Your task to perform on an android device: manage bookmarks in the chrome app Image 0: 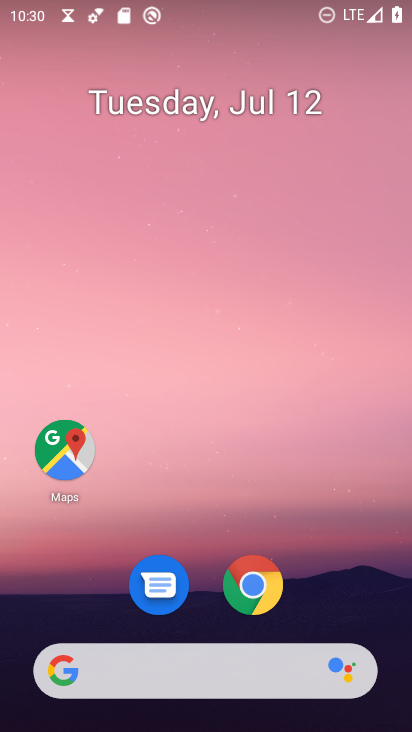
Step 0: press home button
Your task to perform on an android device: manage bookmarks in the chrome app Image 1: 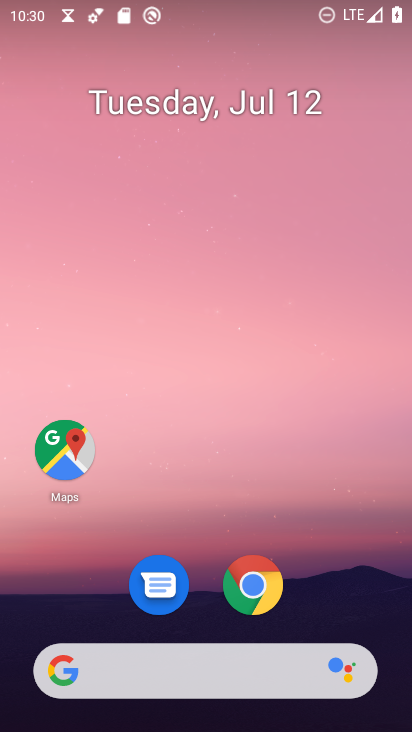
Step 1: click (262, 582)
Your task to perform on an android device: manage bookmarks in the chrome app Image 2: 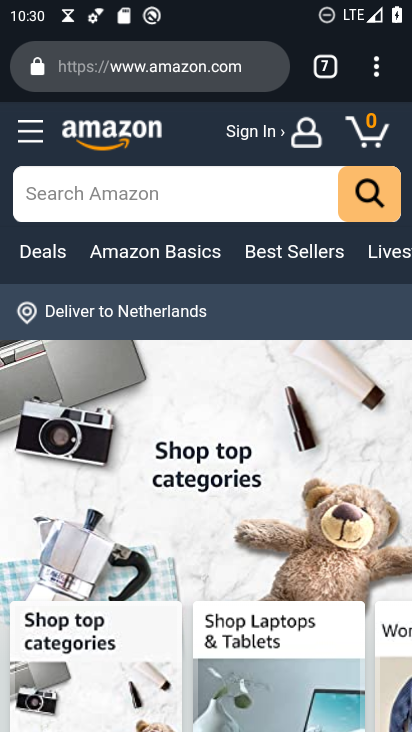
Step 2: drag from (375, 74) to (228, 257)
Your task to perform on an android device: manage bookmarks in the chrome app Image 3: 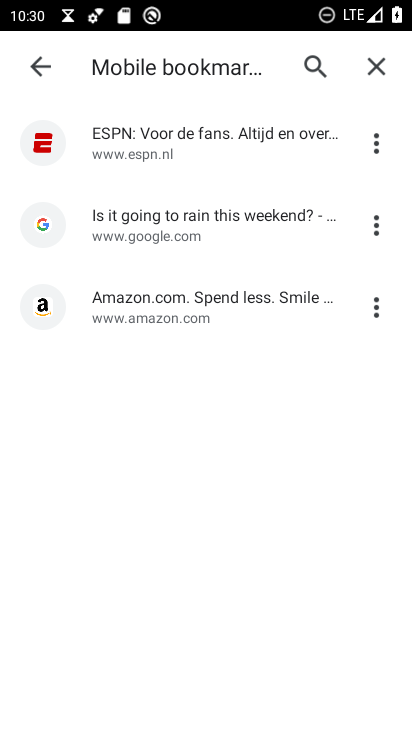
Step 3: click (374, 145)
Your task to perform on an android device: manage bookmarks in the chrome app Image 4: 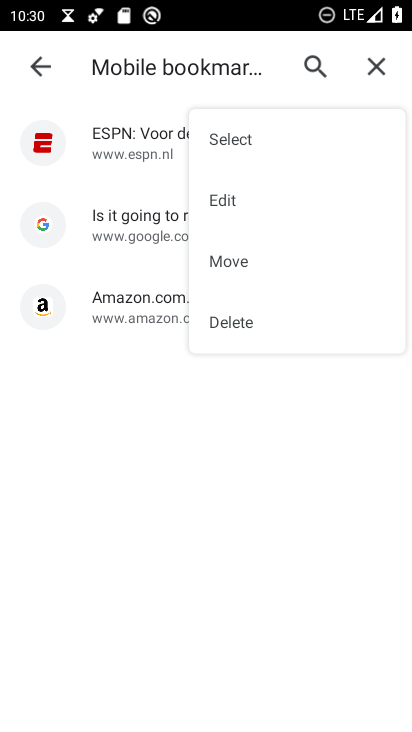
Step 4: click (237, 329)
Your task to perform on an android device: manage bookmarks in the chrome app Image 5: 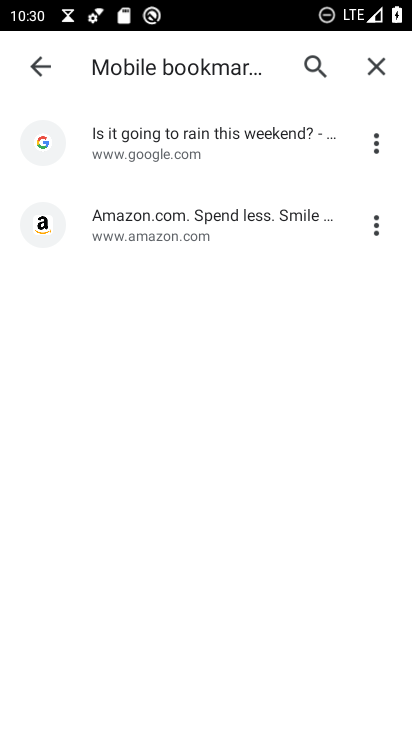
Step 5: task complete